Your task to perform on an android device: Open Wikipedia Image 0: 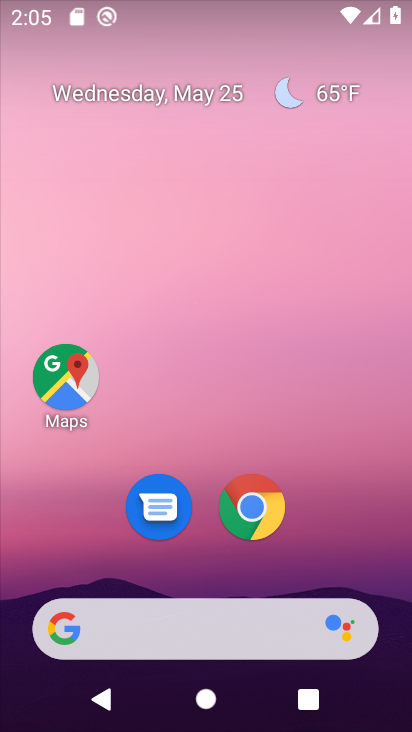
Step 0: click (253, 537)
Your task to perform on an android device: Open Wikipedia Image 1: 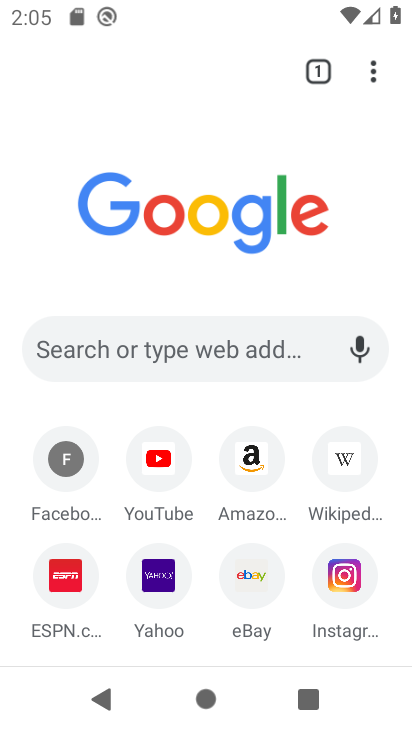
Step 1: click (338, 480)
Your task to perform on an android device: Open Wikipedia Image 2: 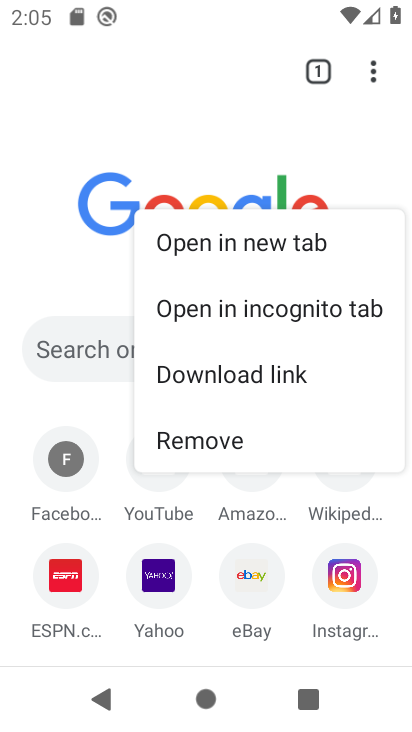
Step 2: click (338, 479)
Your task to perform on an android device: Open Wikipedia Image 3: 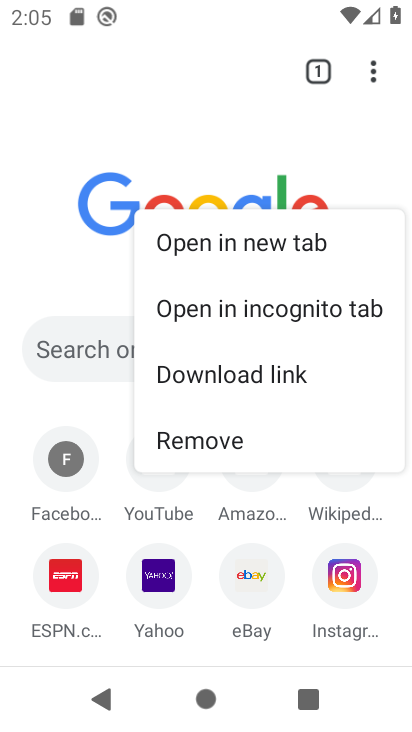
Step 3: click (346, 490)
Your task to perform on an android device: Open Wikipedia Image 4: 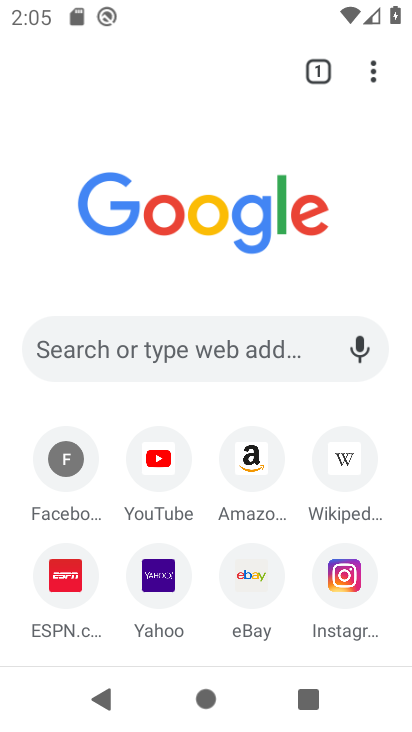
Step 4: click (355, 453)
Your task to perform on an android device: Open Wikipedia Image 5: 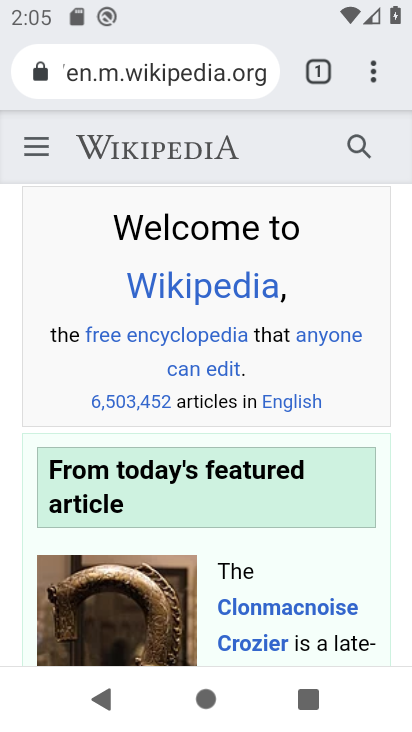
Step 5: task complete